Your task to perform on an android device: turn on bluetooth scan Image 0: 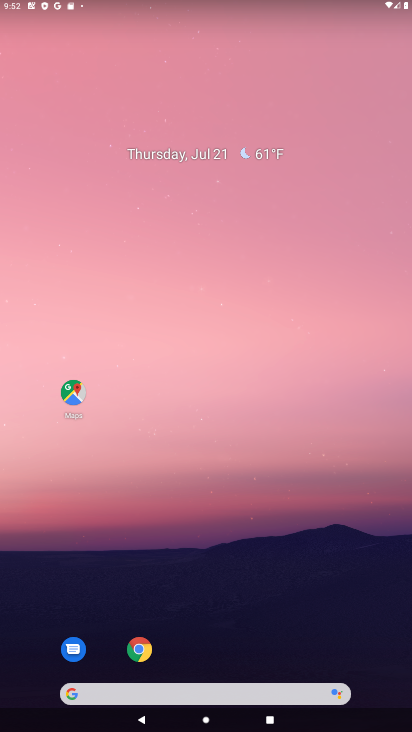
Step 0: drag from (182, 690) to (172, 69)
Your task to perform on an android device: turn on bluetooth scan Image 1: 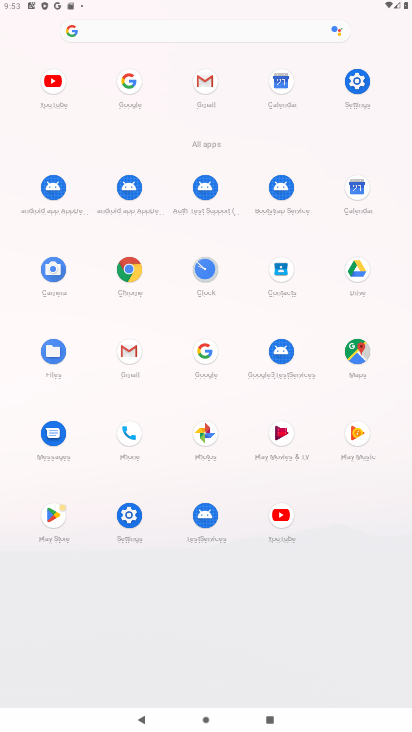
Step 1: click (356, 79)
Your task to perform on an android device: turn on bluetooth scan Image 2: 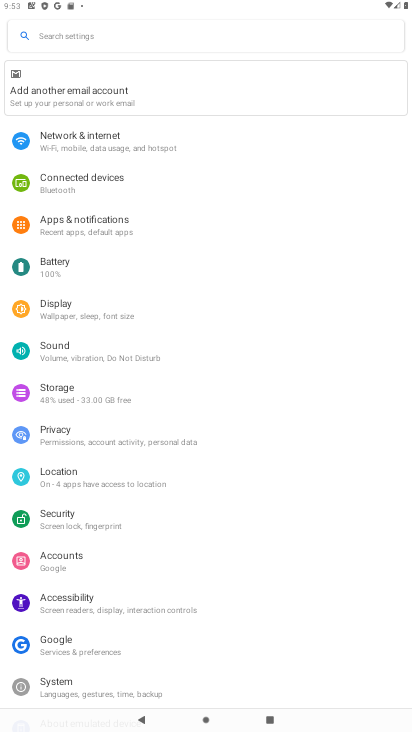
Step 2: click (73, 476)
Your task to perform on an android device: turn on bluetooth scan Image 3: 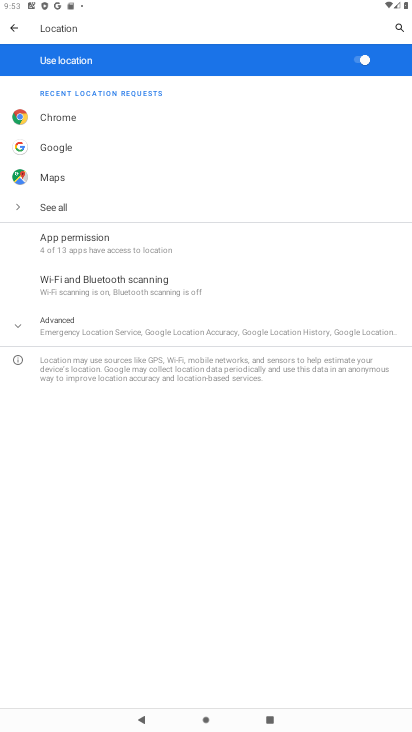
Step 3: click (133, 285)
Your task to perform on an android device: turn on bluetooth scan Image 4: 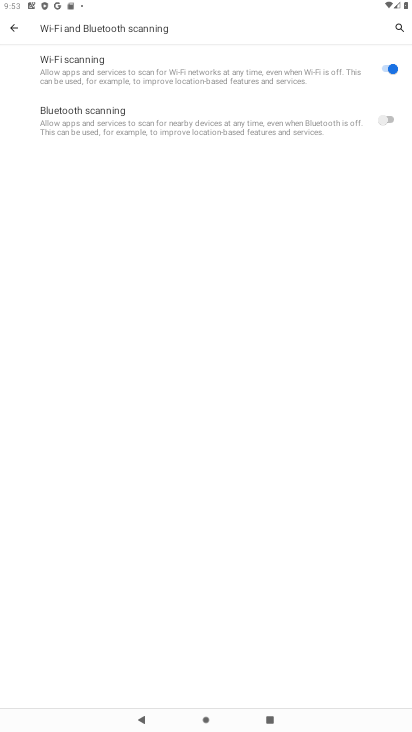
Step 4: click (383, 121)
Your task to perform on an android device: turn on bluetooth scan Image 5: 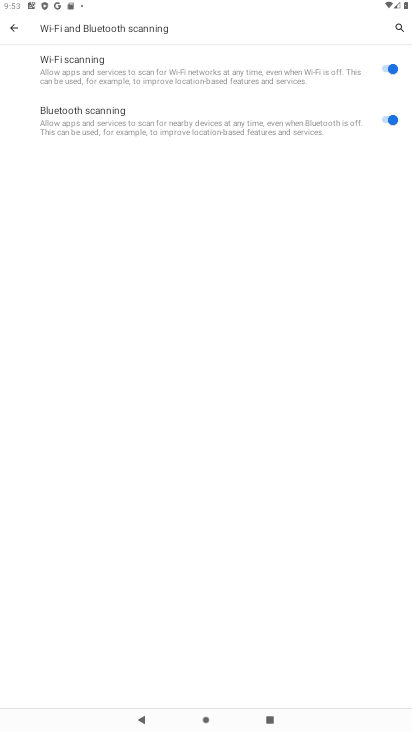
Step 5: task complete